Your task to perform on an android device: Go to Amazon Image 0: 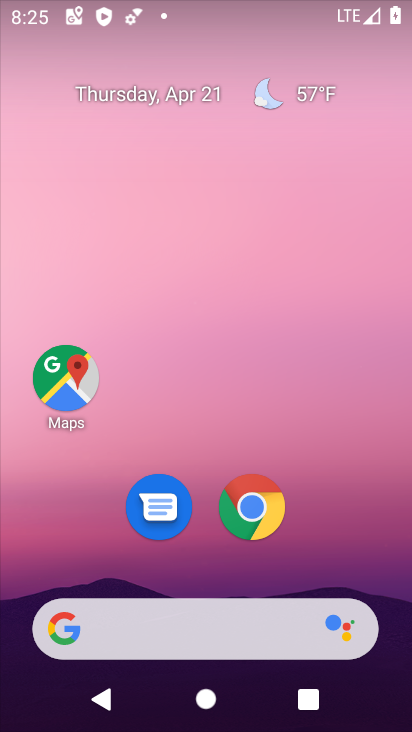
Step 0: click (263, 507)
Your task to perform on an android device: Go to Amazon Image 1: 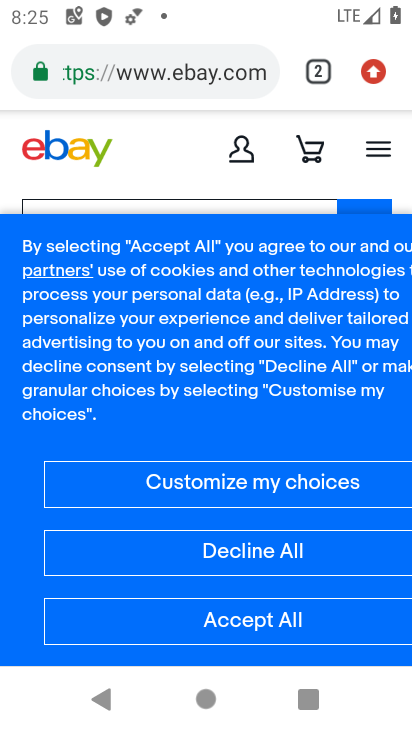
Step 1: drag from (376, 71) to (116, 223)
Your task to perform on an android device: Go to Amazon Image 2: 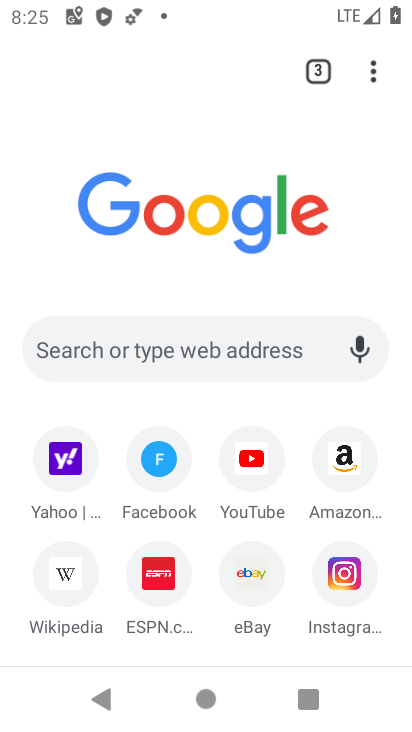
Step 2: click (337, 466)
Your task to perform on an android device: Go to Amazon Image 3: 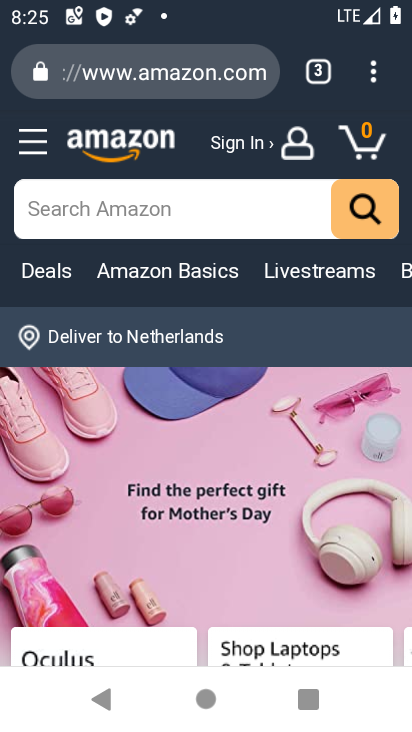
Step 3: task complete